Your task to perform on an android device: Open Reddit.com Image 0: 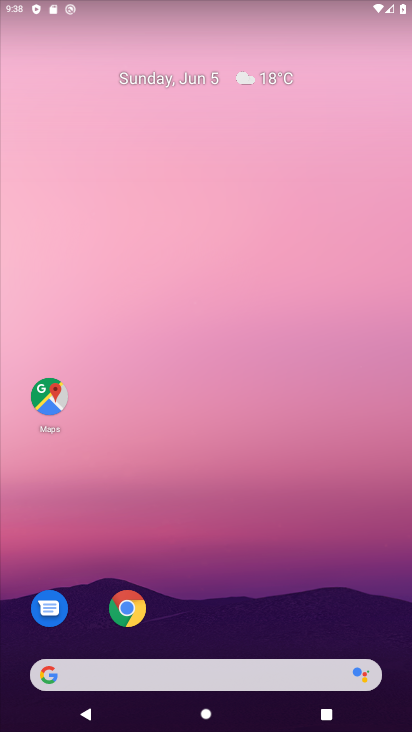
Step 0: click (130, 607)
Your task to perform on an android device: Open Reddit.com Image 1: 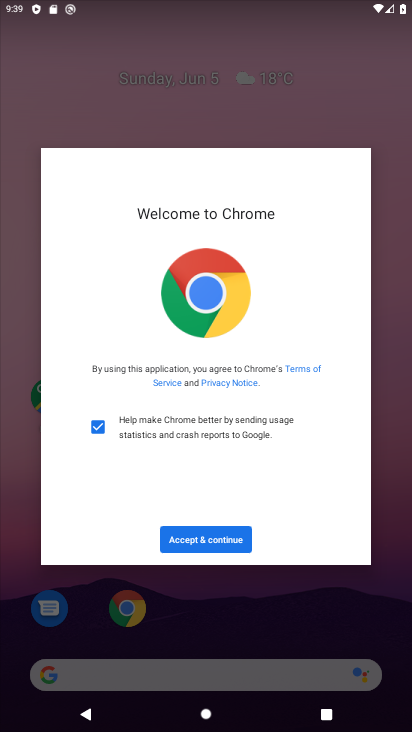
Step 1: click (200, 534)
Your task to perform on an android device: Open Reddit.com Image 2: 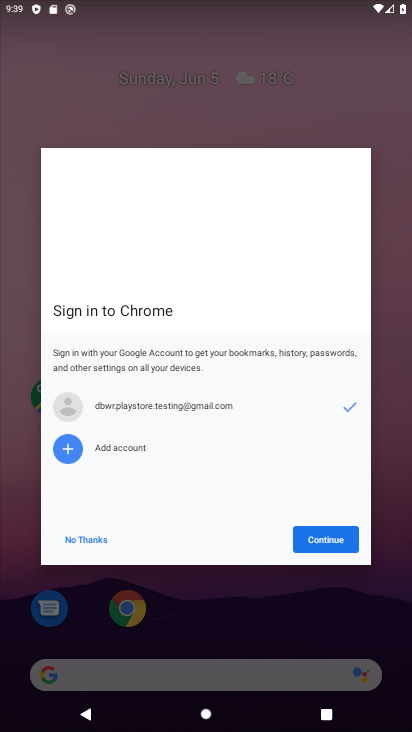
Step 2: click (340, 538)
Your task to perform on an android device: Open Reddit.com Image 3: 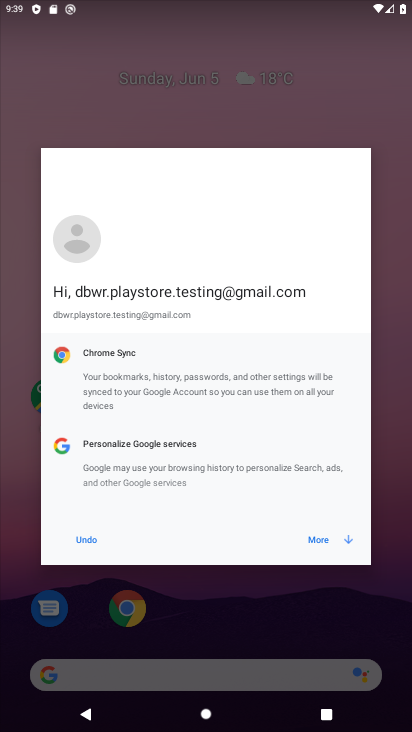
Step 3: click (321, 536)
Your task to perform on an android device: Open Reddit.com Image 4: 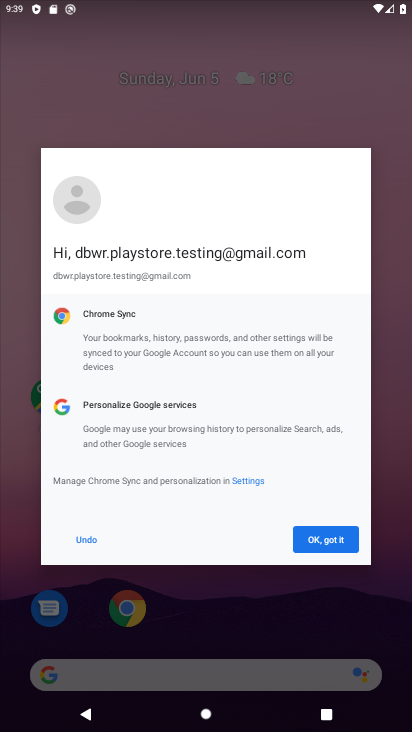
Step 4: click (321, 536)
Your task to perform on an android device: Open Reddit.com Image 5: 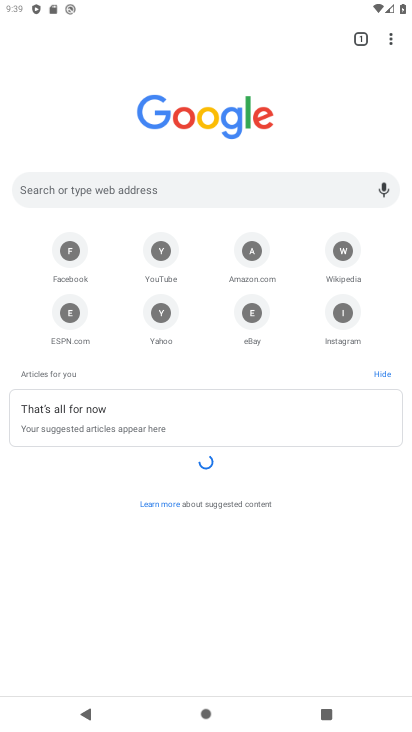
Step 5: click (143, 180)
Your task to perform on an android device: Open Reddit.com Image 6: 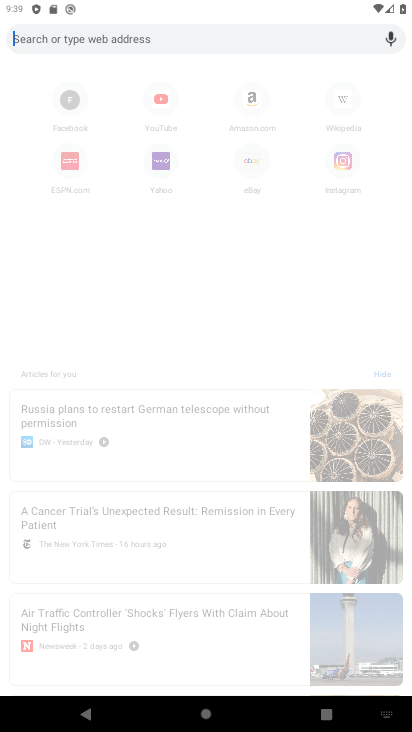
Step 6: type "reddit.com"
Your task to perform on an android device: Open Reddit.com Image 7: 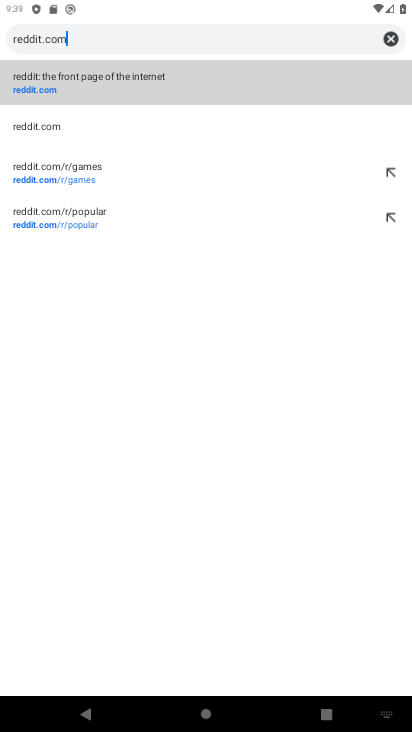
Step 7: click (150, 98)
Your task to perform on an android device: Open Reddit.com Image 8: 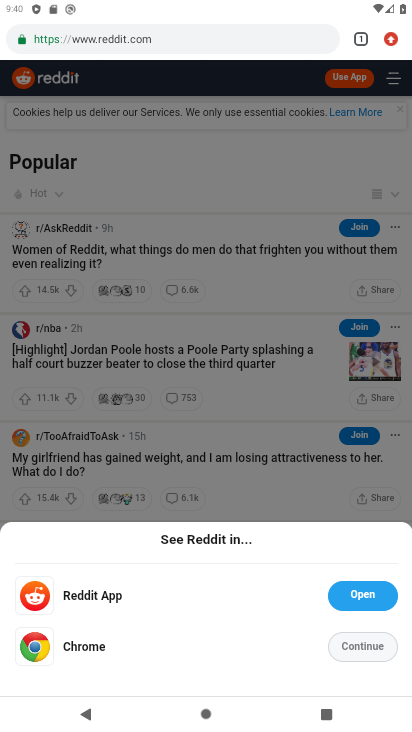
Step 8: task complete